Your task to perform on an android device: Open Yahoo.com Image 0: 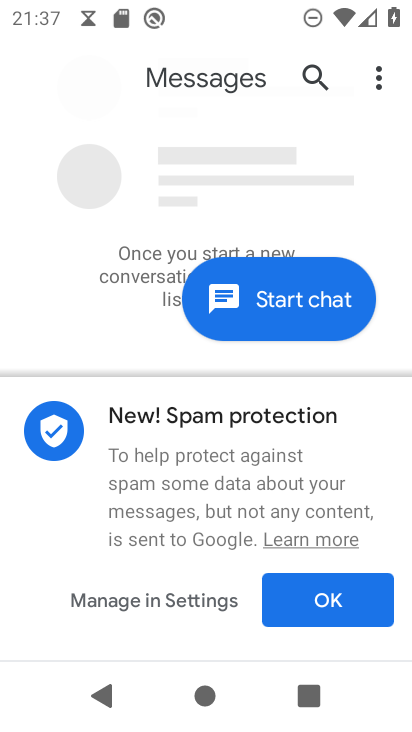
Step 0: press home button
Your task to perform on an android device: Open Yahoo.com Image 1: 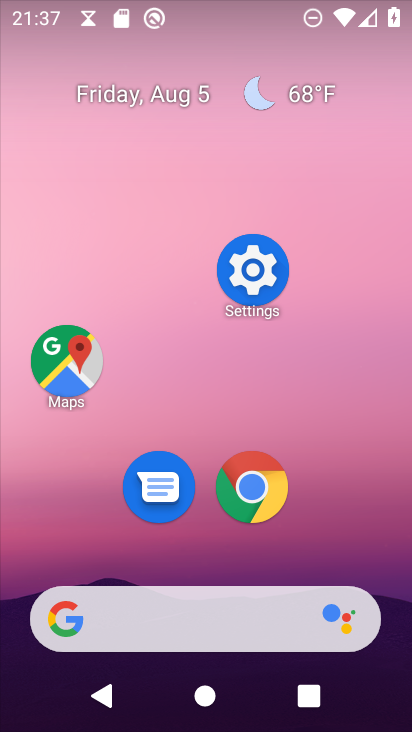
Step 1: click (252, 492)
Your task to perform on an android device: Open Yahoo.com Image 2: 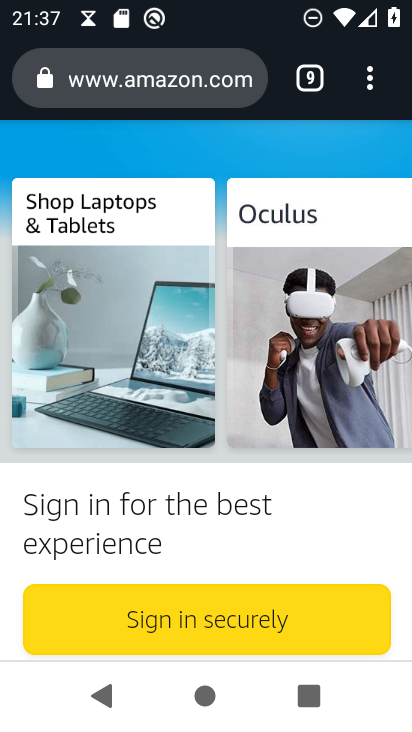
Step 2: drag from (373, 78) to (135, 166)
Your task to perform on an android device: Open Yahoo.com Image 3: 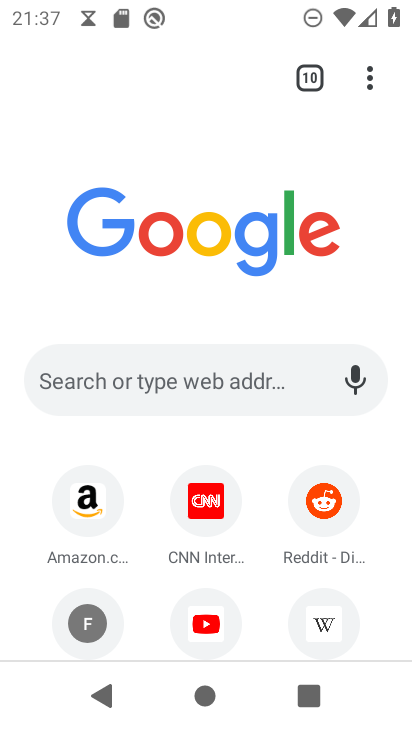
Step 3: drag from (242, 595) to (299, 173)
Your task to perform on an android device: Open Yahoo.com Image 4: 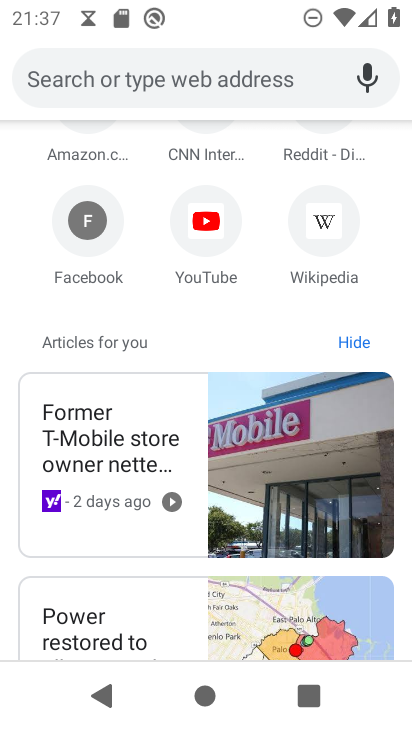
Step 4: drag from (232, 296) to (175, 513)
Your task to perform on an android device: Open Yahoo.com Image 5: 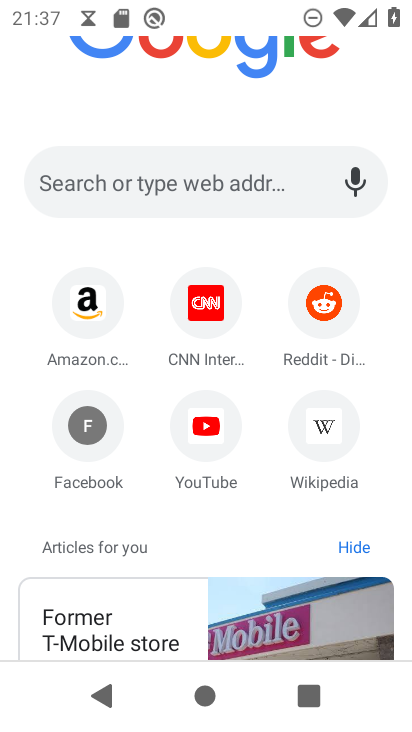
Step 5: click (127, 183)
Your task to perform on an android device: Open Yahoo.com Image 6: 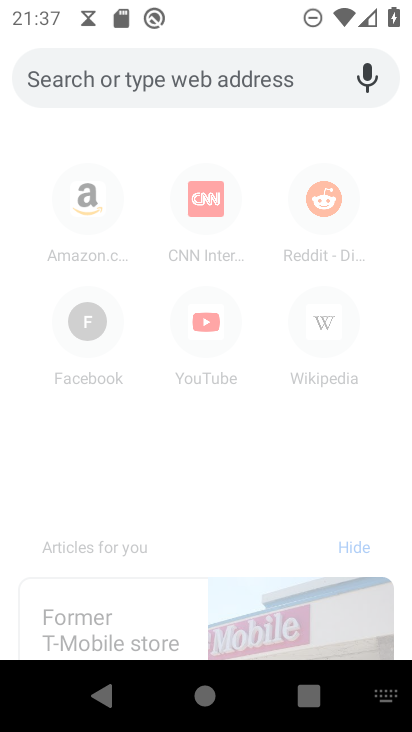
Step 6: type "Yahoo.com"
Your task to perform on an android device: Open Yahoo.com Image 7: 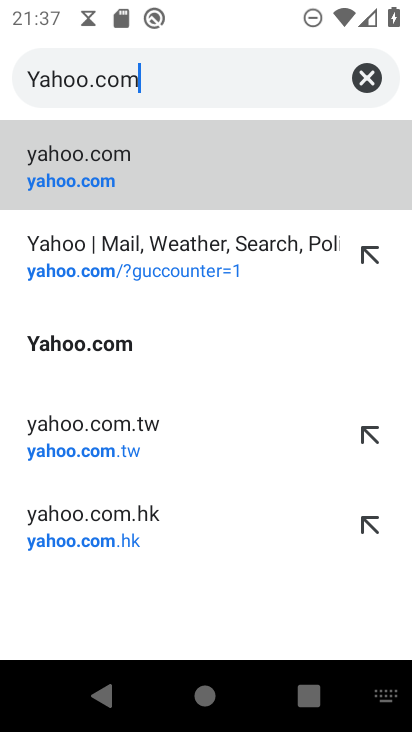
Step 7: click (69, 153)
Your task to perform on an android device: Open Yahoo.com Image 8: 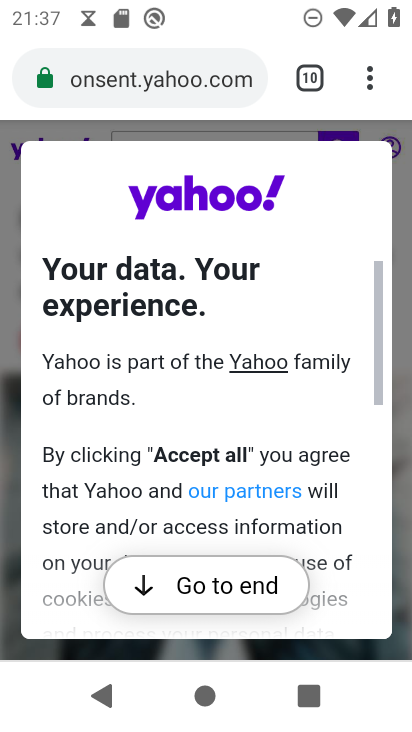
Step 8: click (230, 585)
Your task to perform on an android device: Open Yahoo.com Image 9: 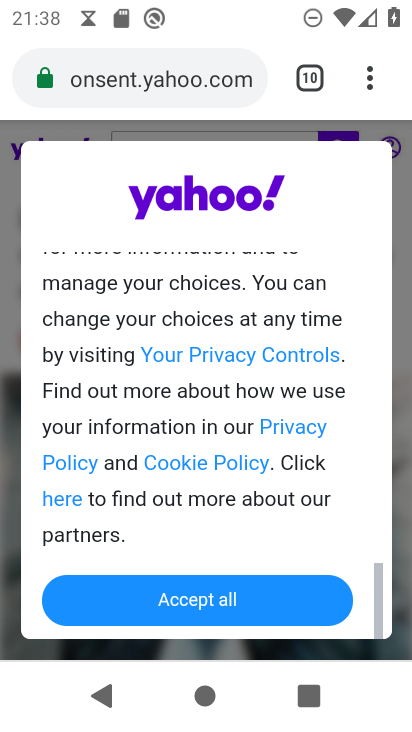
Step 9: click (177, 599)
Your task to perform on an android device: Open Yahoo.com Image 10: 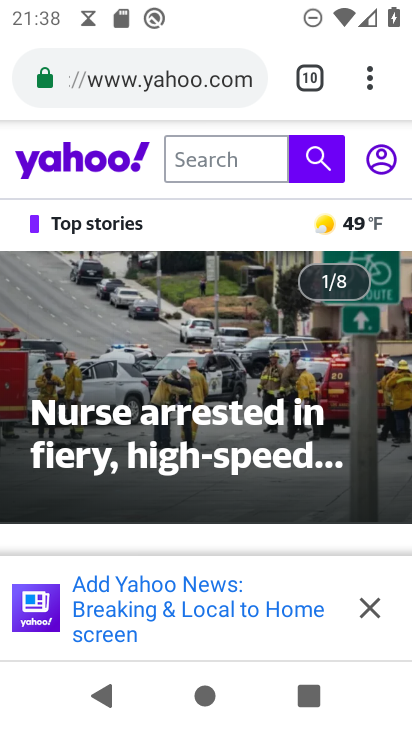
Step 10: task complete